Your task to perform on an android device: Open Android settings Image 0: 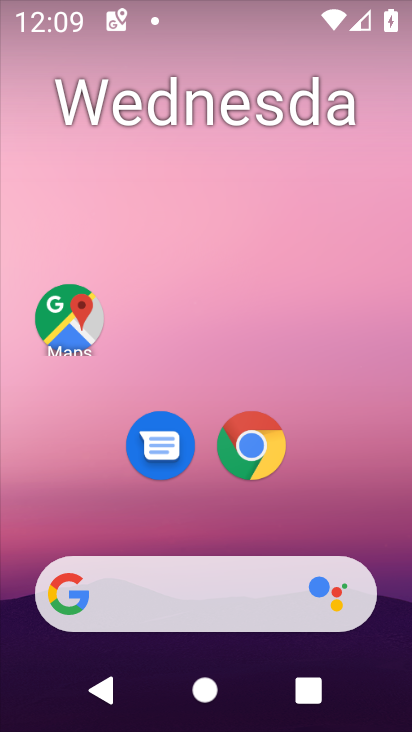
Step 0: drag from (224, 728) to (227, 166)
Your task to perform on an android device: Open Android settings Image 1: 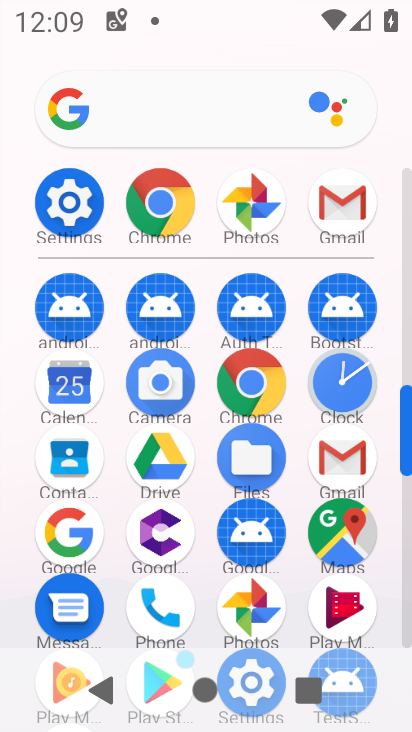
Step 1: click (54, 201)
Your task to perform on an android device: Open Android settings Image 2: 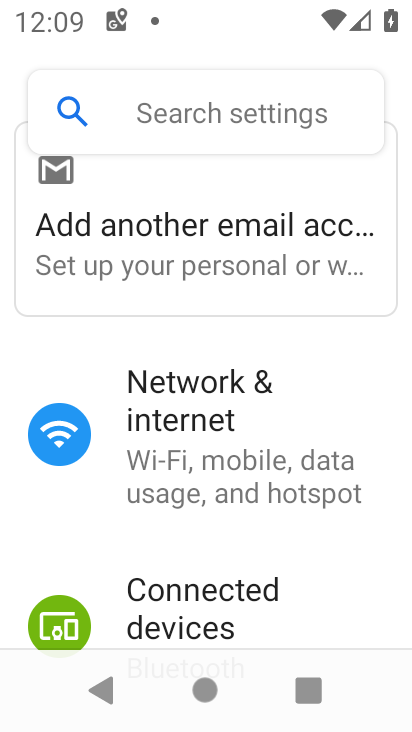
Step 2: task complete